Your task to perform on an android device: open a bookmark in the chrome app Image 0: 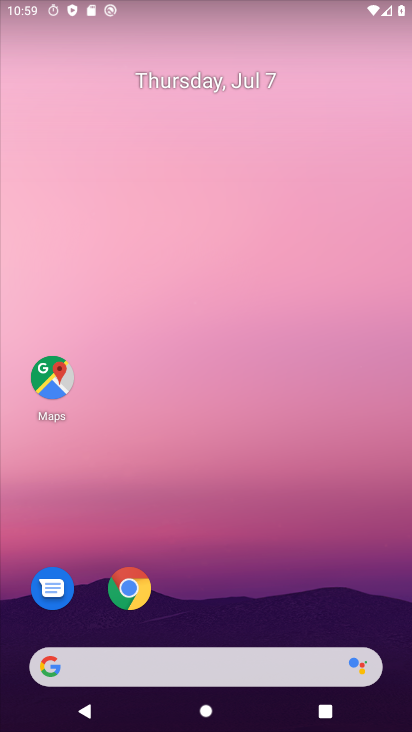
Step 0: drag from (303, 562) to (209, 0)
Your task to perform on an android device: open a bookmark in the chrome app Image 1: 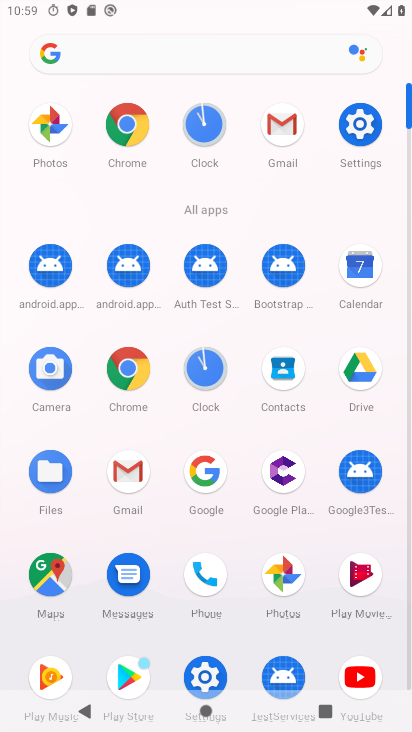
Step 1: click (130, 368)
Your task to perform on an android device: open a bookmark in the chrome app Image 2: 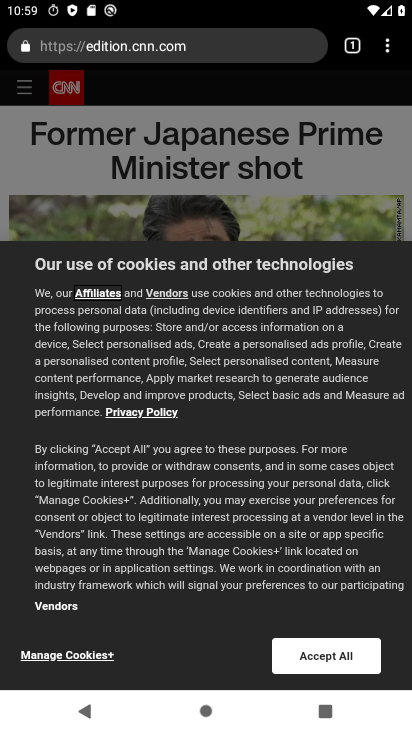
Step 2: drag from (389, 47) to (239, 158)
Your task to perform on an android device: open a bookmark in the chrome app Image 3: 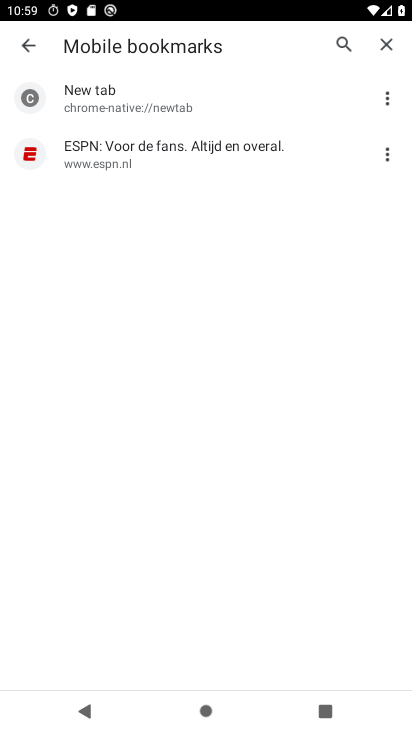
Step 3: click (144, 149)
Your task to perform on an android device: open a bookmark in the chrome app Image 4: 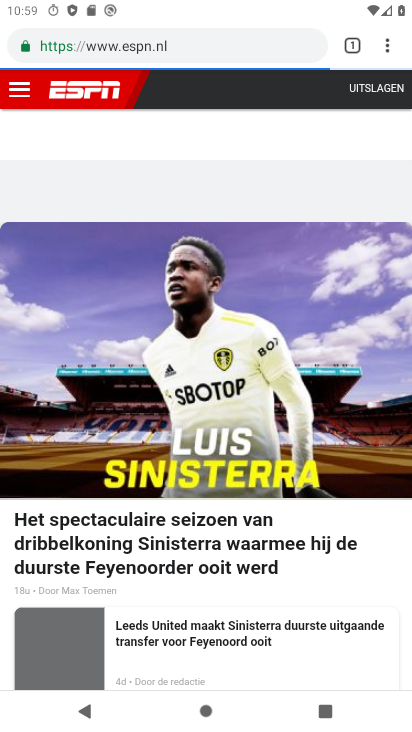
Step 4: task complete